Your task to perform on an android device: Go to sound settings Image 0: 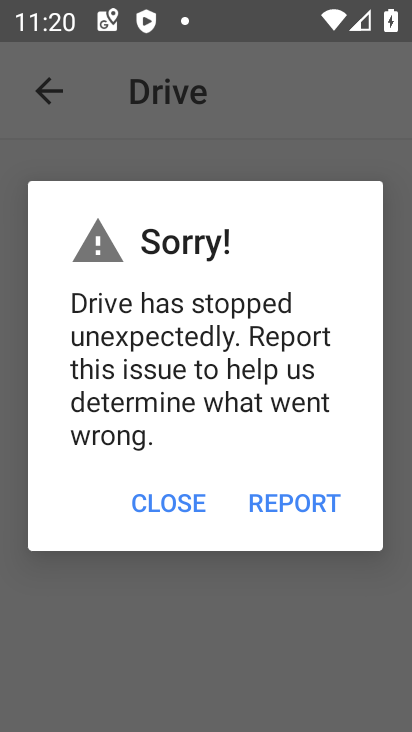
Step 0: press home button
Your task to perform on an android device: Go to sound settings Image 1: 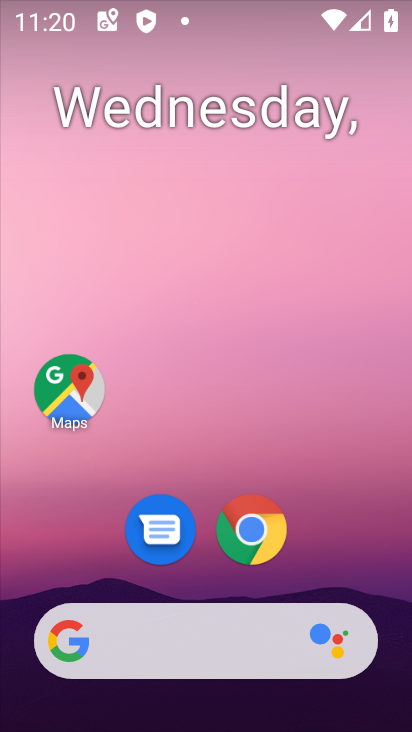
Step 1: drag from (171, 605) to (58, 443)
Your task to perform on an android device: Go to sound settings Image 2: 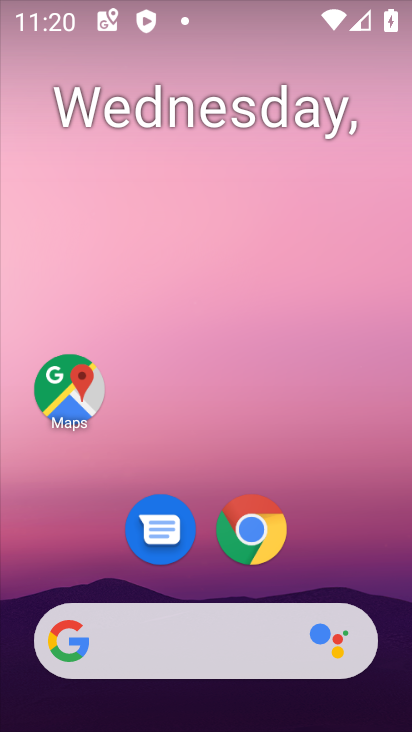
Step 2: drag from (191, 590) to (135, 73)
Your task to perform on an android device: Go to sound settings Image 3: 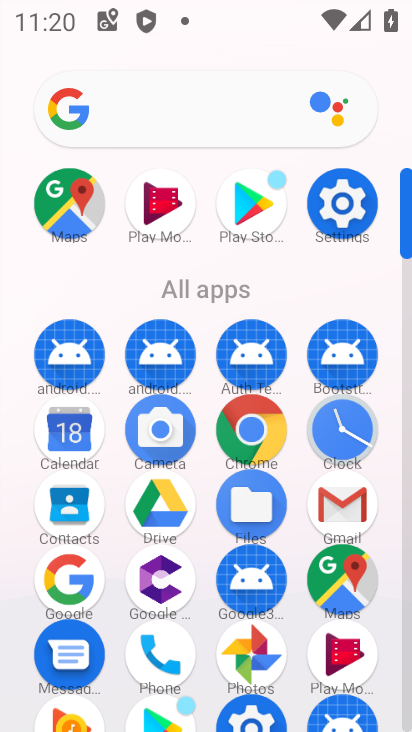
Step 3: click (347, 224)
Your task to perform on an android device: Go to sound settings Image 4: 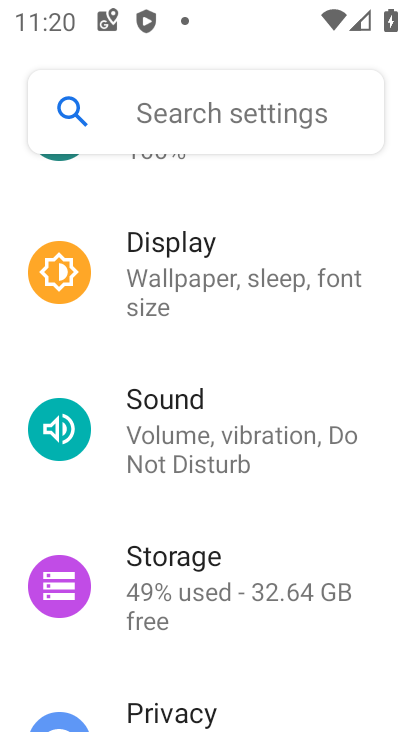
Step 4: click (203, 456)
Your task to perform on an android device: Go to sound settings Image 5: 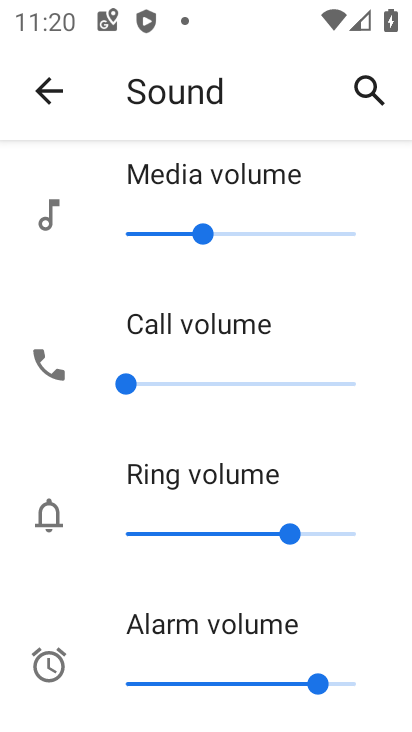
Step 5: task complete